Your task to perform on an android device: Go to Android settings Image 0: 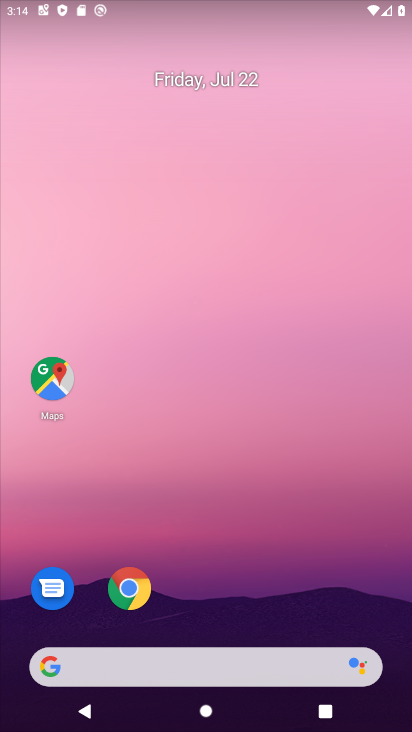
Step 0: drag from (168, 642) to (168, 170)
Your task to perform on an android device: Go to Android settings Image 1: 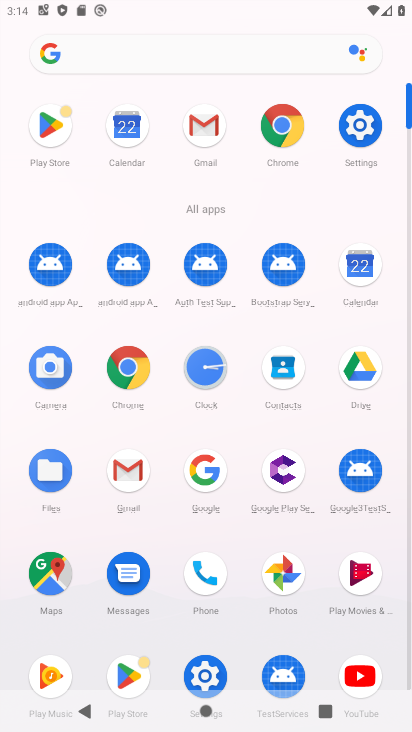
Step 1: click (364, 131)
Your task to perform on an android device: Go to Android settings Image 2: 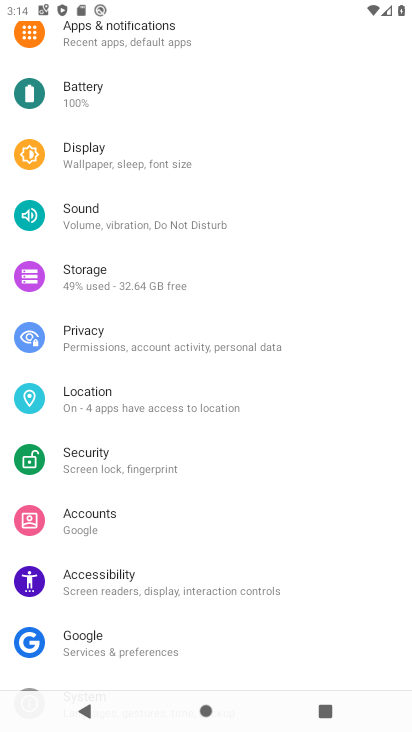
Step 2: task complete